Your task to perform on an android device: toggle improve location accuracy Image 0: 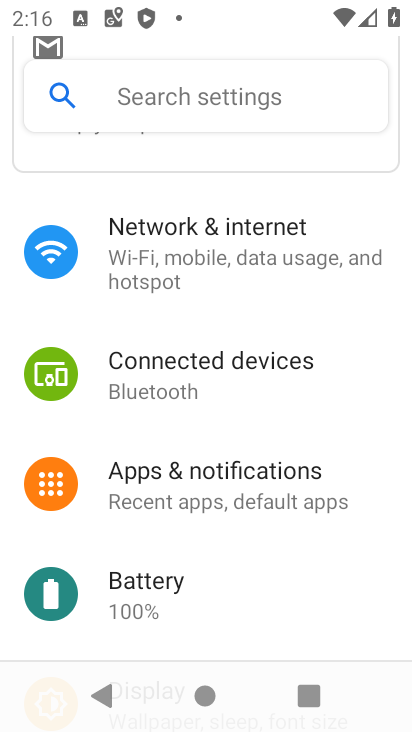
Step 0: drag from (384, 608) to (333, 190)
Your task to perform on an android device: toggle improve location accuracy Image 1: 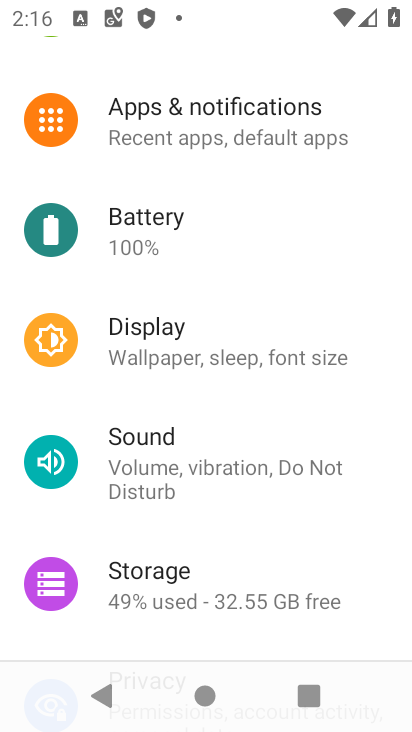
Step 1: drag from (357, 641) to (356, 83)
Your task to perform on an android device: toggle improve location accuracy Image 2: 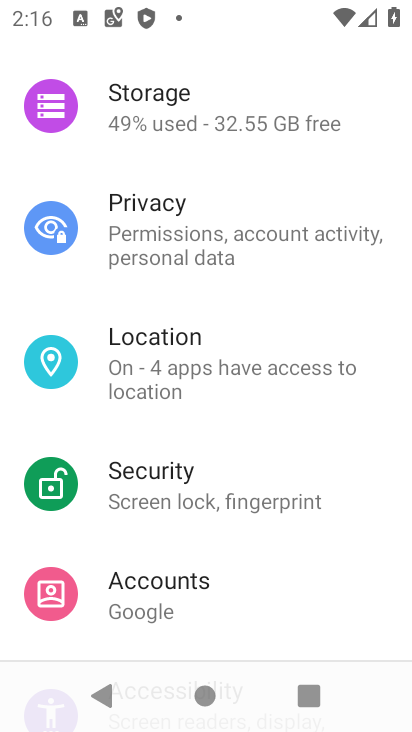
Step 2: drag from (321, 619) to (361, 130)
Your task to perform on an android device: toggle improve location accuracy Image 3: 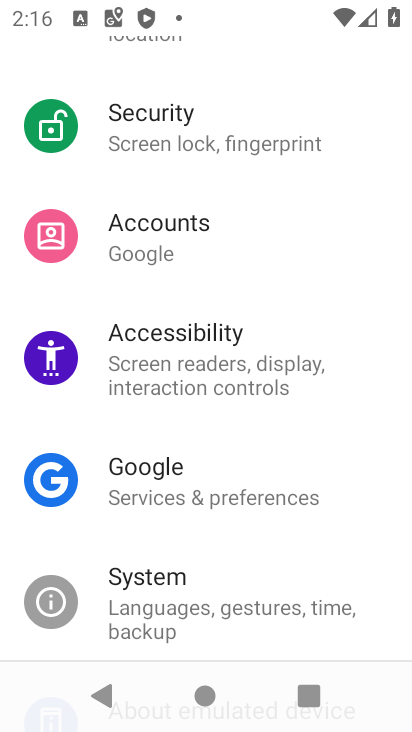
Step 3: drag from (172, 126) to (203, 497)
Your task to perform on an android device: toggle improve location accuracy Image 4: 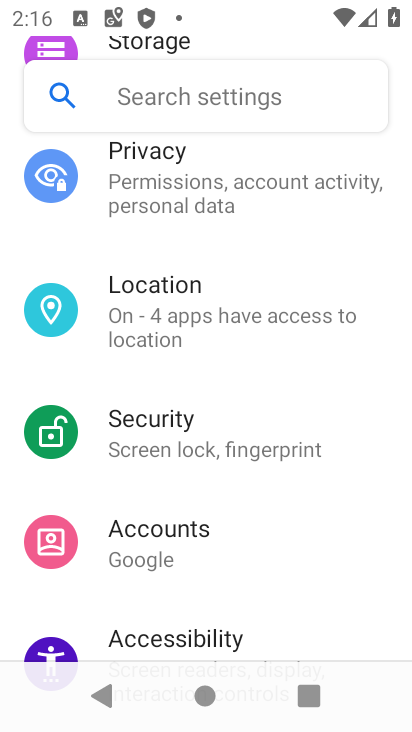
Step 4: click (141, 290)
Your task to perform on an android device: toggle improve location accuracy Image 5: 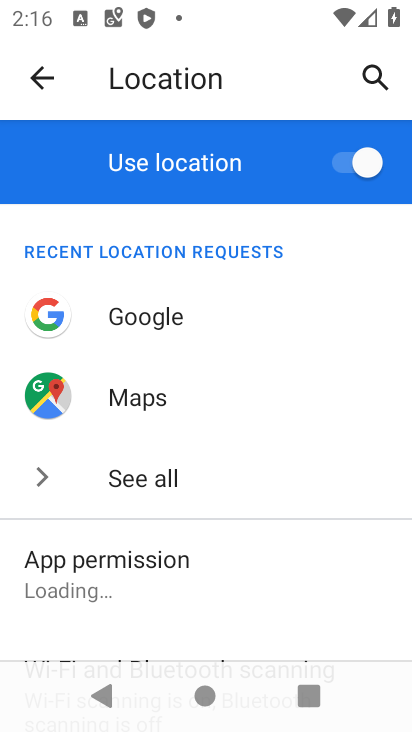
Step 5: drag from (296, 638) to (316, 27)
Your task to perform on an android device: toggle improve location accuracy Image 6: 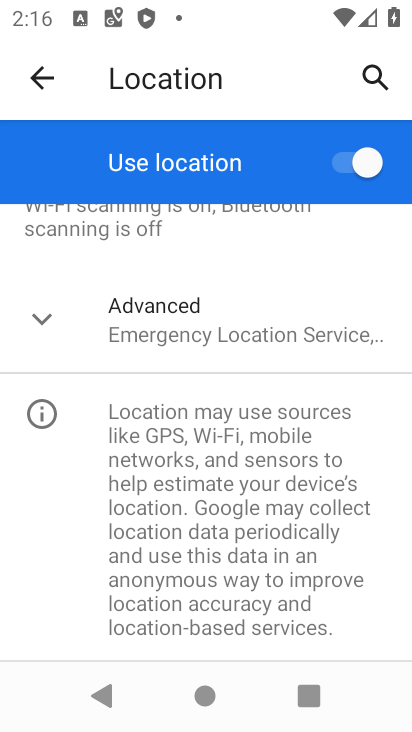
Step 6: click (47, 322)
Your task to perform on an android device: toggle improve location accuracy Image 7: 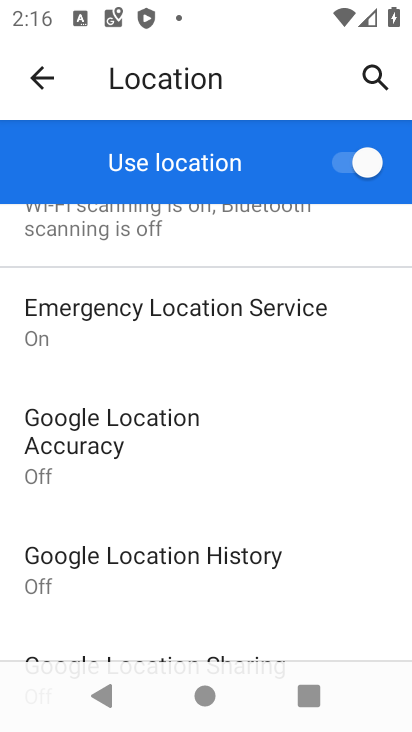
Step 7: drag from (287, 591) to (293, 409)
Your task to perform on an android device: toggle improve location accuracy Image 8: 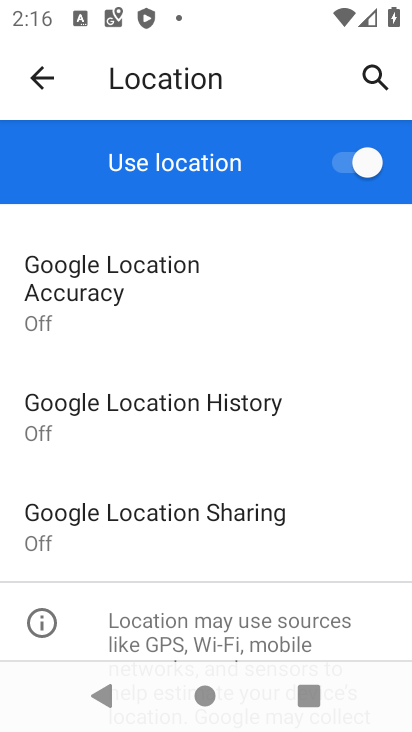
Step 8: click (56, 275)
Your task to perform on an android device: toggle improve location accuracy Image 9: 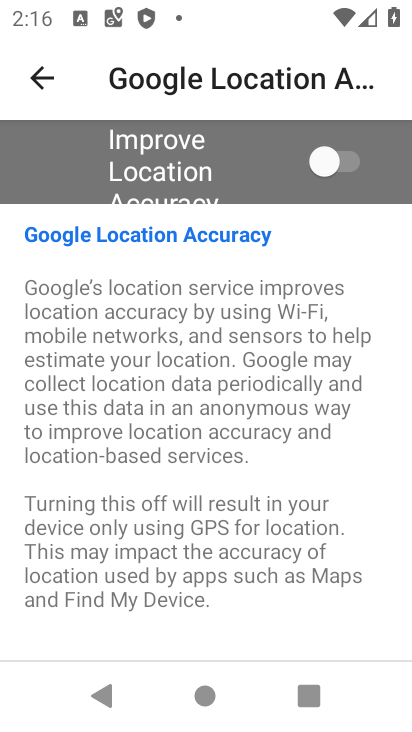
Step 9: click (350, 156)
Your task to perform on an android device: toggle improve location accuracy Image 10: 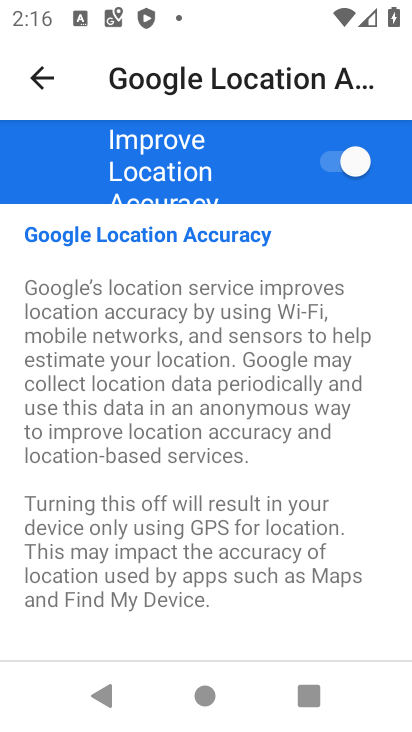
Step 10: task complete